Your task to perform on an android device: empty trash in the gmail app Image 0: 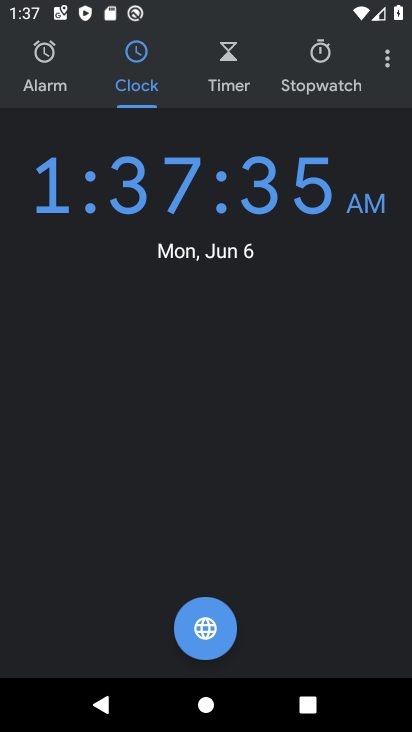
Step 0: press home button
Your task to perform on an android device: empty trash in the gmail app Image 1: 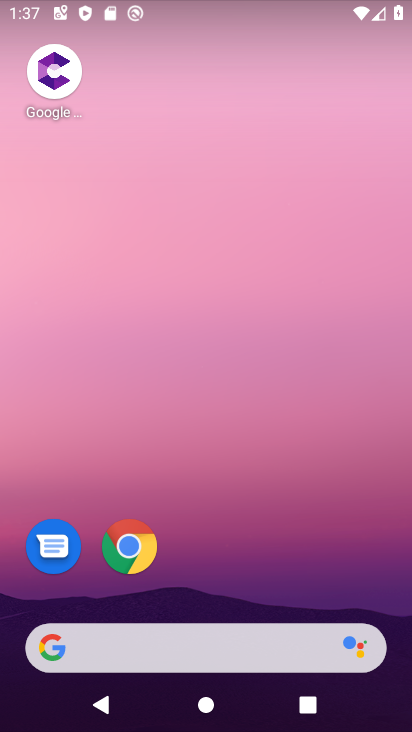
Step 1: drag from (287, 581) to (208, 162)
Your task to perform on an android device: empty trash in the gmail app Image 2: 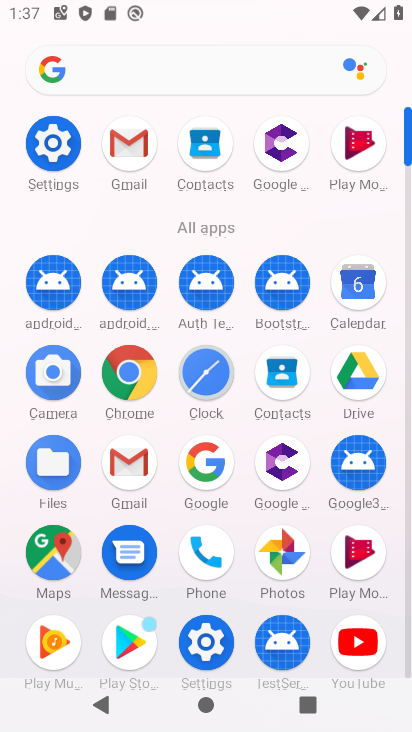
Step 2: click (142, 160)
Your task to perform on an android device: empty trash in the gmail app Image 3: 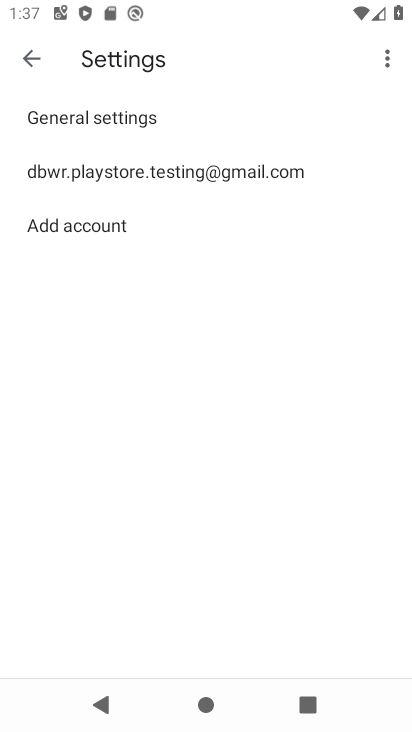
Step 3: task complete